Your task to perform on an android device: toggle priority inbox in the gmail app Image 0: 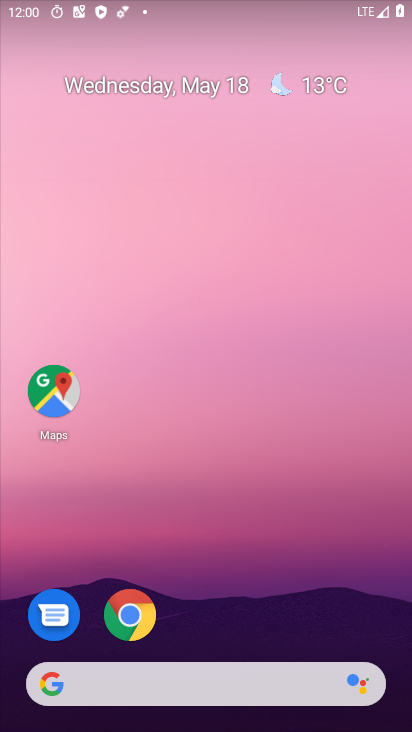
Step 0: drag from (180, 685) to (322, 157)
Your task to perform on an android device: toggle priority inbox in the gmail app Image 1: 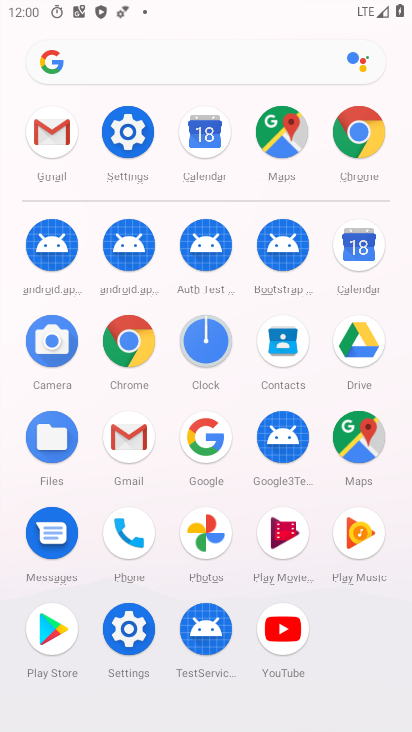
Step 1: click (61, 143)
Your task to perform on an android device: toggle priority inbox in the gmail app Image 2: 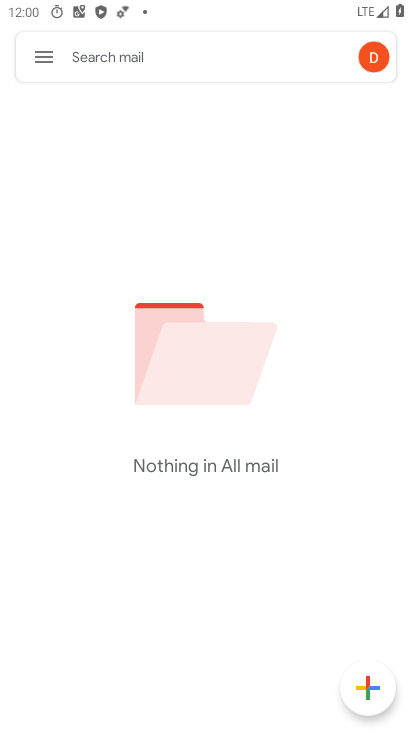
Step 2: click (41, 56)
Your task to perform on an android device: toggle priority inbox in the gmail app Image 3: 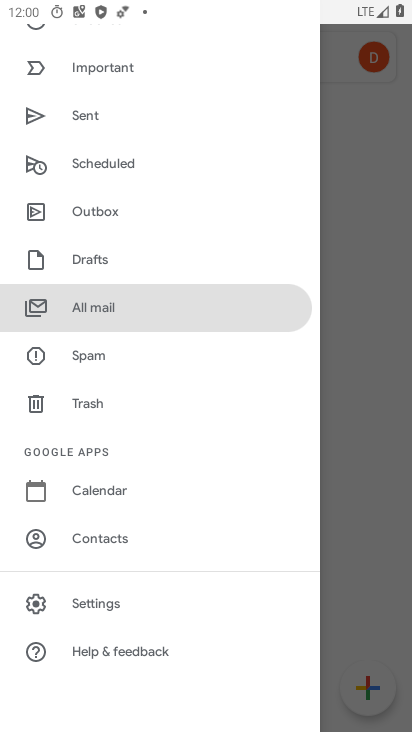
Step 3: click (101, 604)
Your task to perform on an android device: toggle priority inbox in the gmail app Image 4: 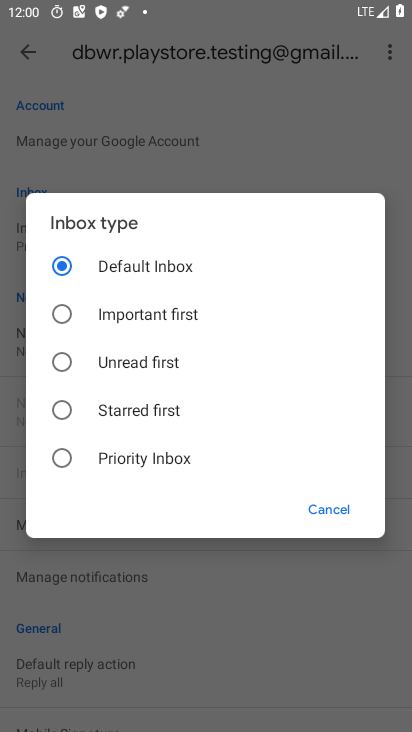
Step 4: click (64, 460)
Your task to perform on an android device: toggle priority inbox in the gmail app Image 5: 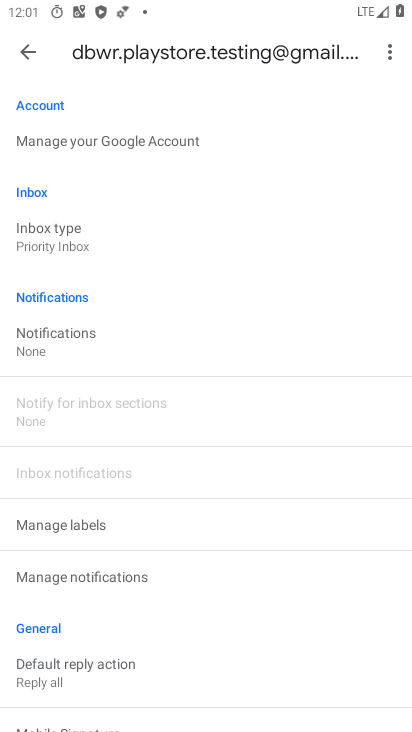
Step 5: task complete